Your task to perform on an android device: Search for Mexican restaurants on Maps Image 0: 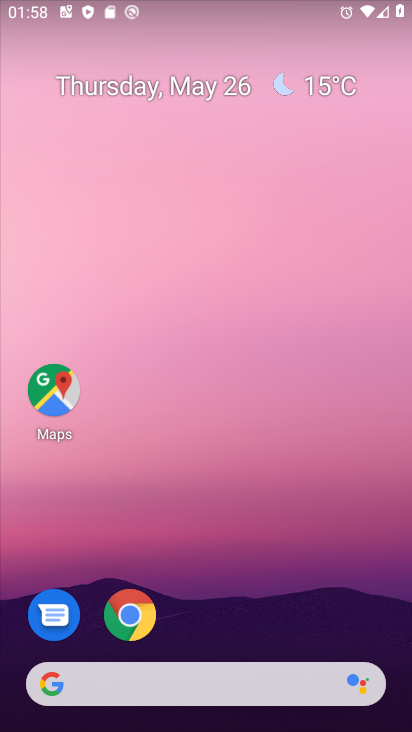
Step 0: click (49, 375)
Your task to perform on an android device: Search for Mexican restaurants on Maps Image 1: 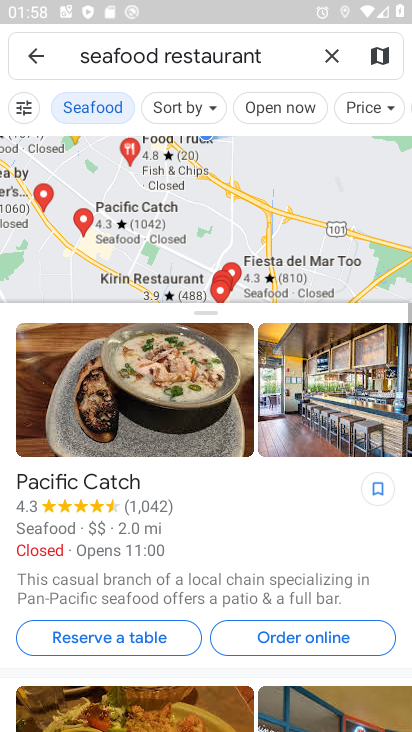
Step 1: click (334, 58)
Your task to perform on an android device: Search for Mexican restaurants on Maps Image 2: 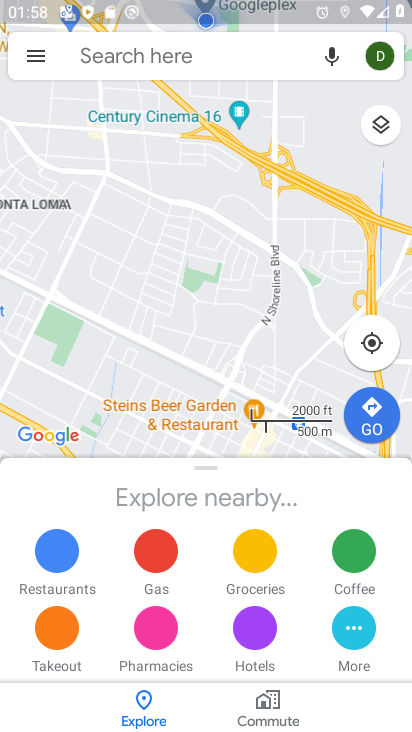
Step 2: click (148, 64)
Your task to perform on an android device: Search for Mexican restaurants on Maps Image 3: 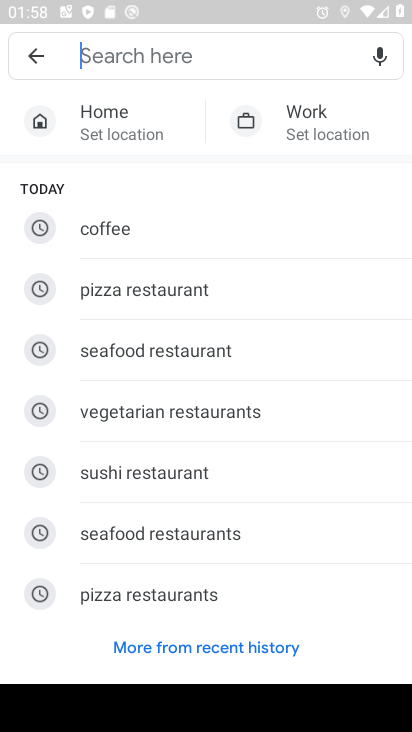
Step 3: drag from (139, 548) to (230, 144)
Your task to perform on an android device: Search for Mexican restaurants on Maps Image 4: 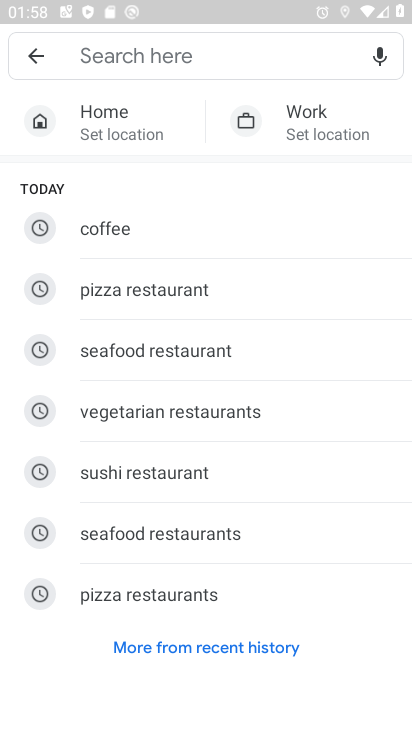
Step 4: click (161, 647)
Your task to perform on an android device: Search for Mexican restaurants on Maps Image 5: 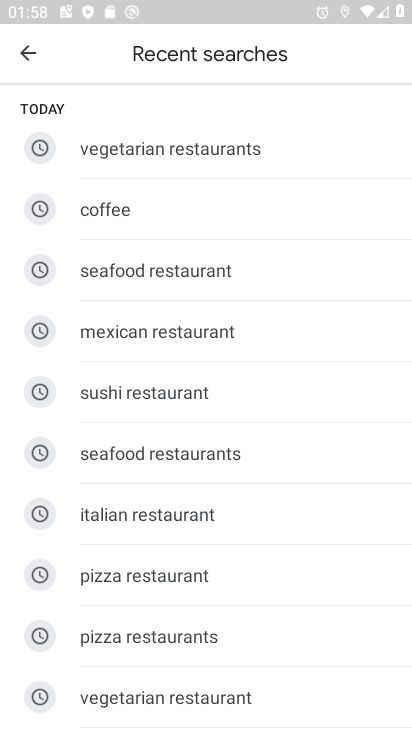
Step 5: click (107, 341)
Your task to perform on an android device: Search for Mexican restaurants on Maps Image 6: 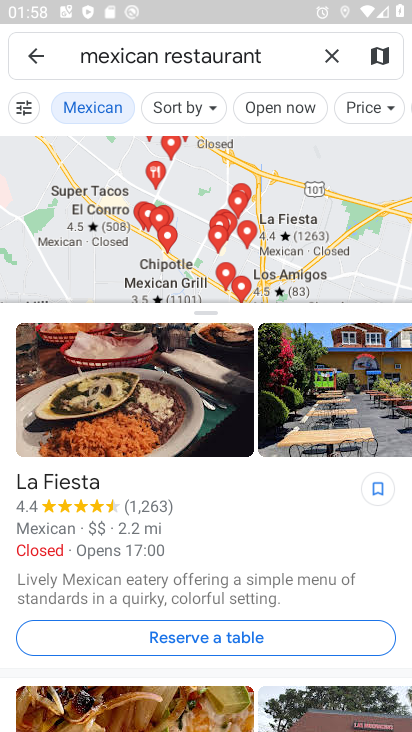
Step 6: task complete